Your task to perform on an android device: What is the news today? Image 0: 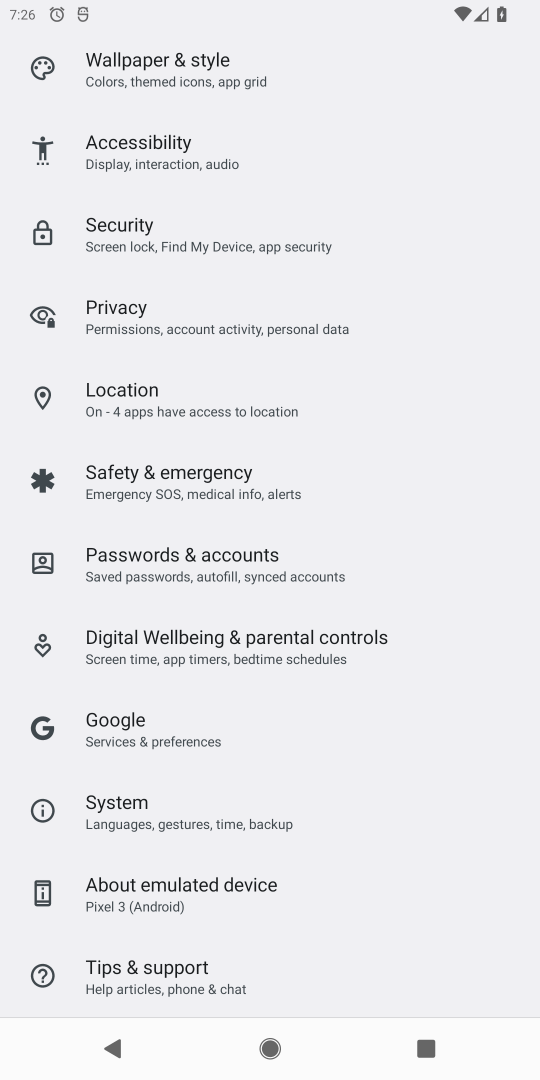
Step 0: press home button
Your task to perform on an android device: What is the news today? Image 1: 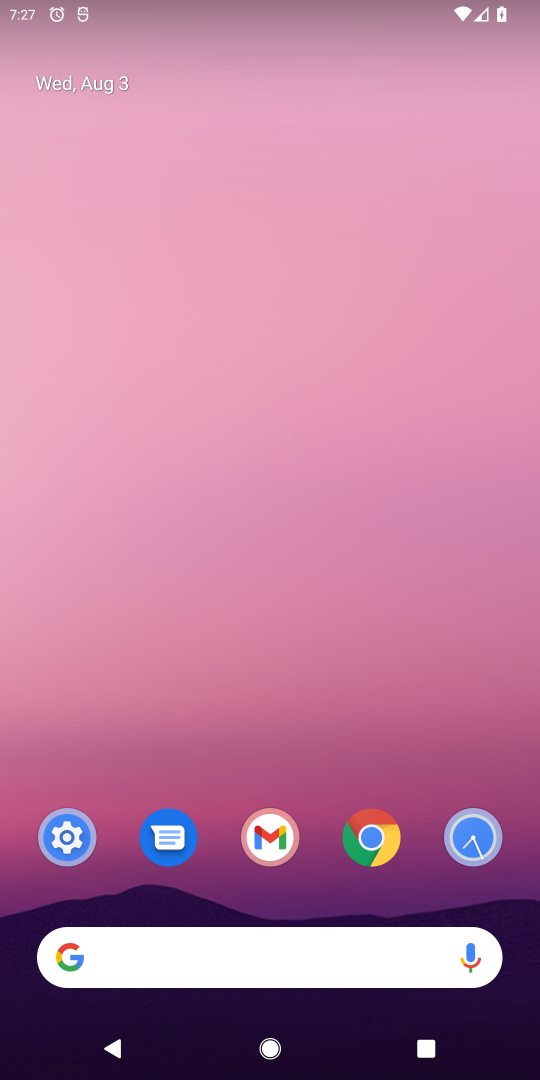
Step 1: click (69, 958)
Your task to perform on an android device: What is the news today? Image 2: 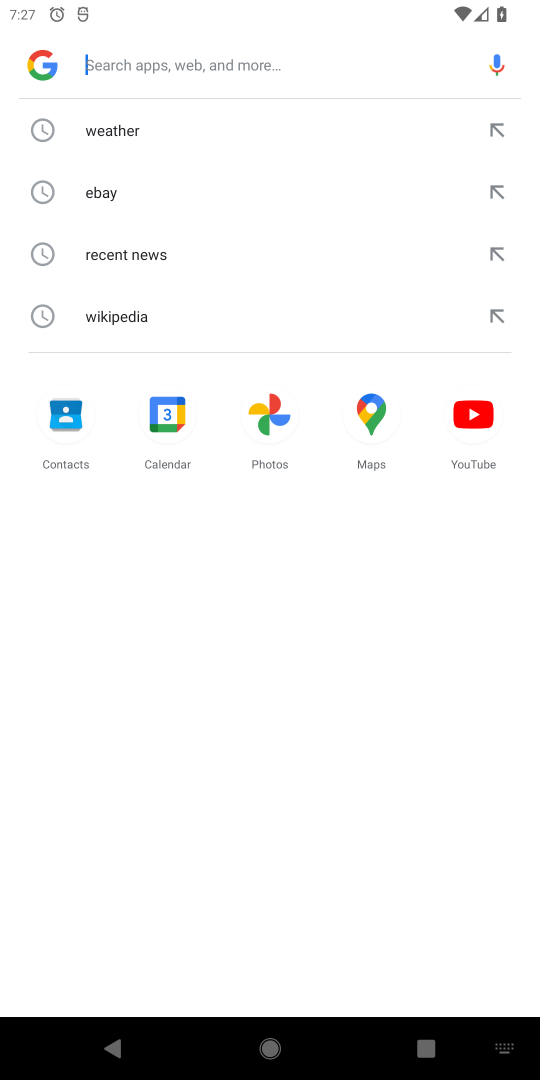
Step 2: type "news today?"
Your task to perform on an android device: What is the news today? Image 3: 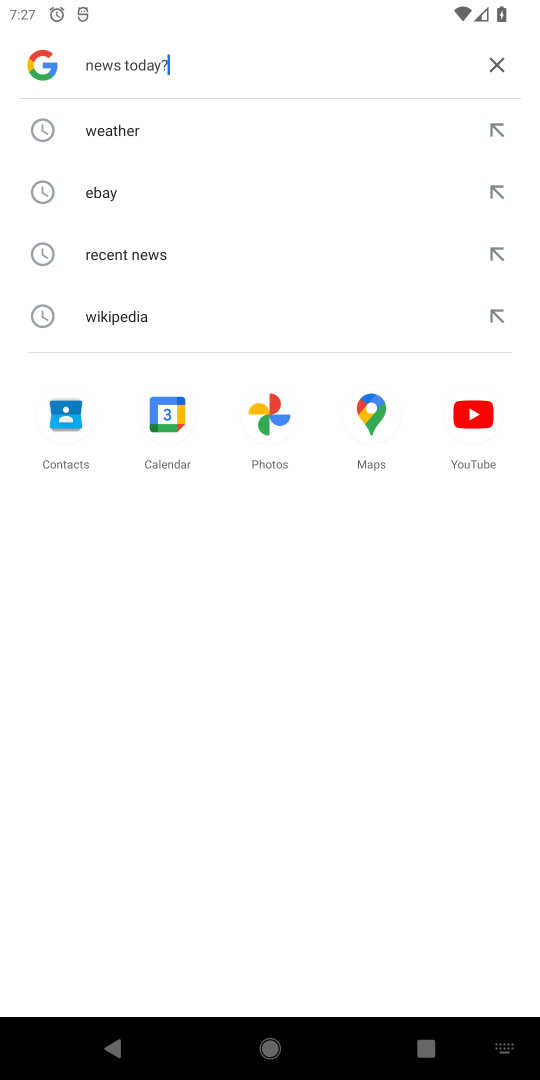
Step 3: press enter
Your task to perform on an android device: What is the news today? Image 4: 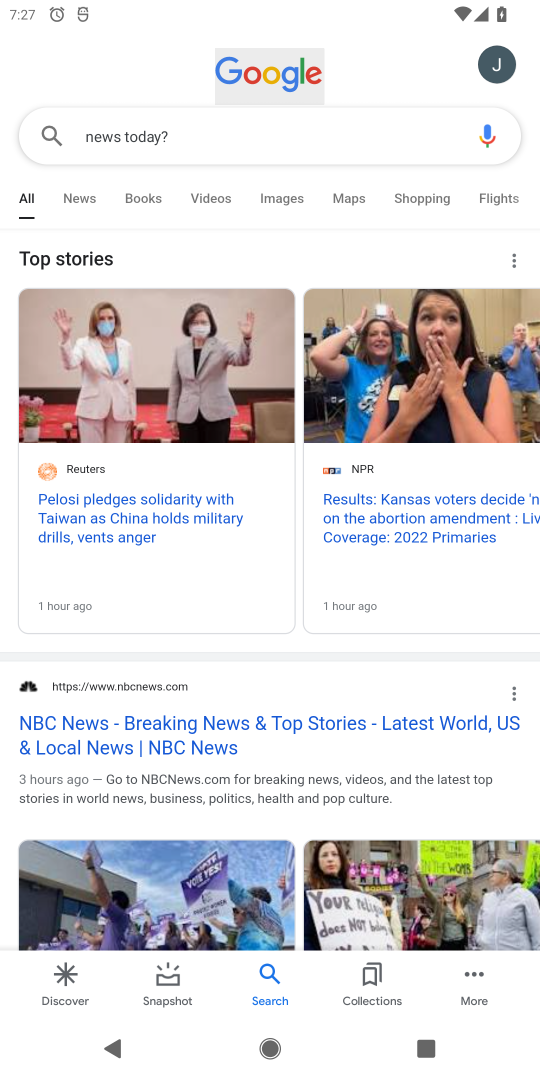
Step 4: task complete